Your task to perform on an android device: check out phone information Image 0: 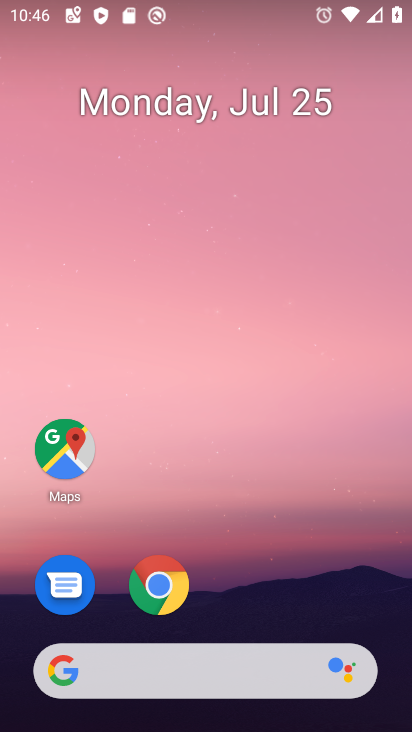
Step 0: drag from (212, 641) to (191, 117)
Your task to perform on an android device: check out phone information Image 1: 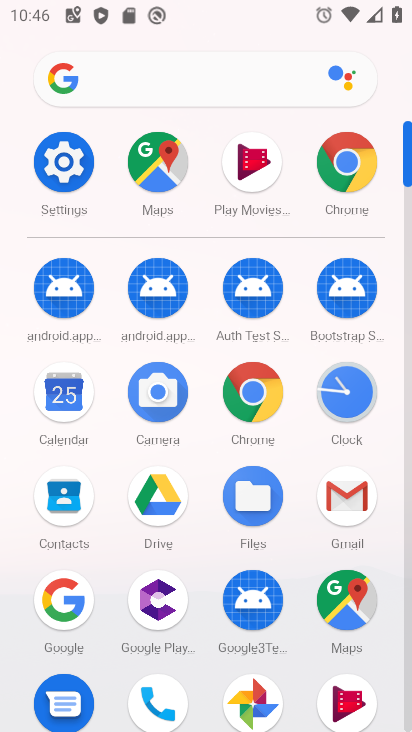
Step 1: click (64, 167)
Your task to perform on an android device: check out phone information Image 2: 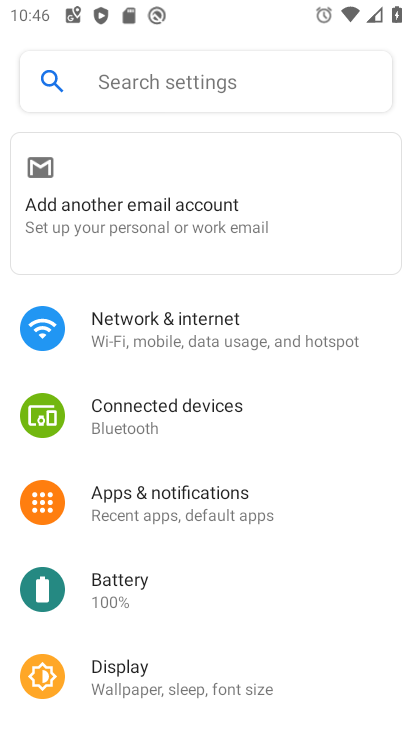
Step 2: drag from (204, 622) to (149, 201)
Your task to perform on an android device: check out phone information Image 3: 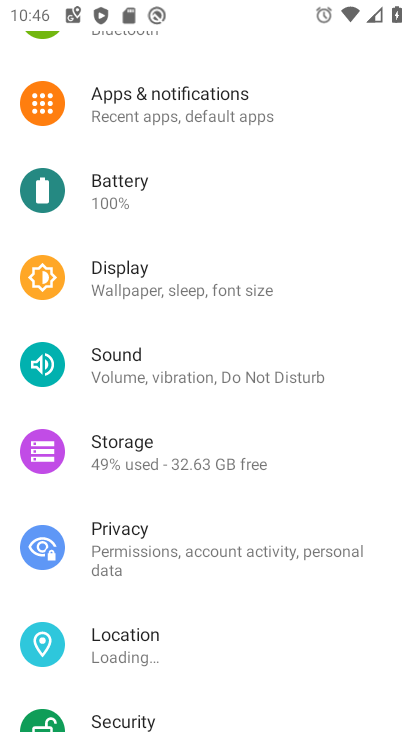
Step 3: drag from (167, 685) to (144, 210)
Your task to perform on an android device: check out phone information Image 4: 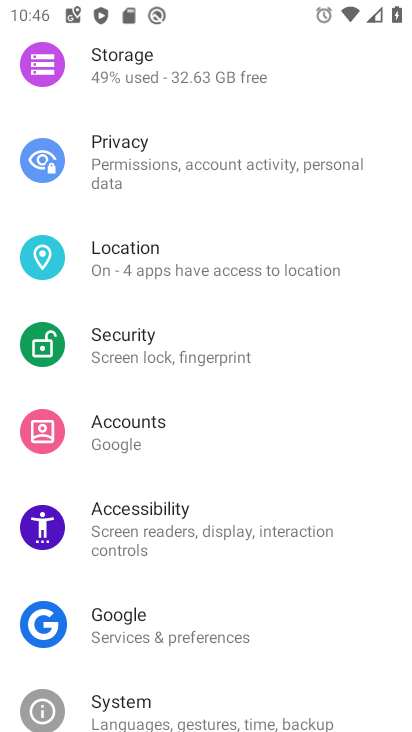
Step 4: drag from (165, 633) to (160, 192)
Your task to perform on an android device: check out phone information Image 5: 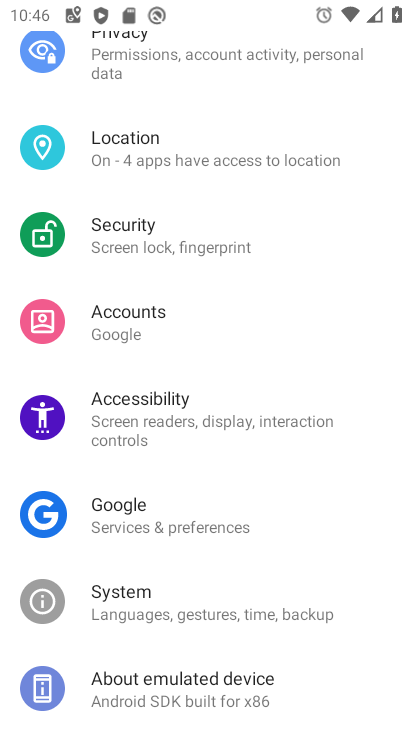
Step 5: click (207, 689)
Your task to perform on an android device: check out phone information Image 6: 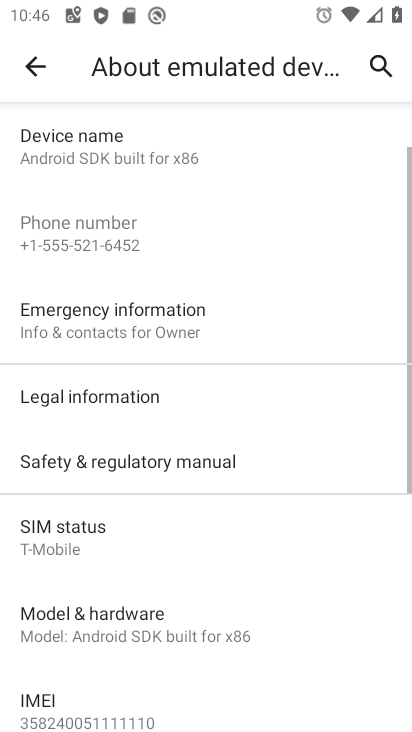
Step 6: task complete